Your task to perform on an android device: open a bookmark in the chrome app Image 0: 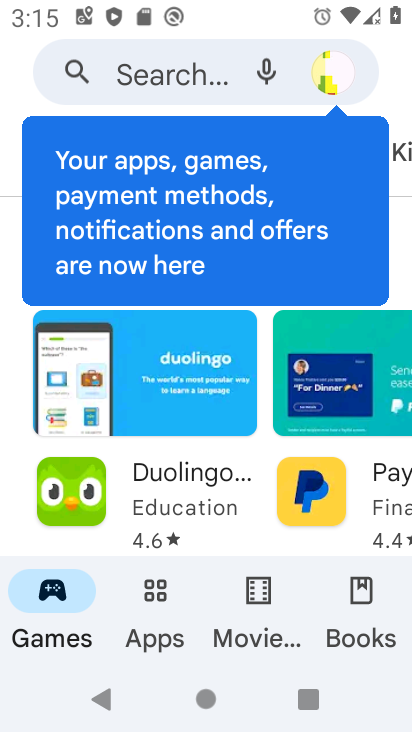
Step 0: press home button
Your task to perform on an android device: open a bookmark in the chrome app Image 1: 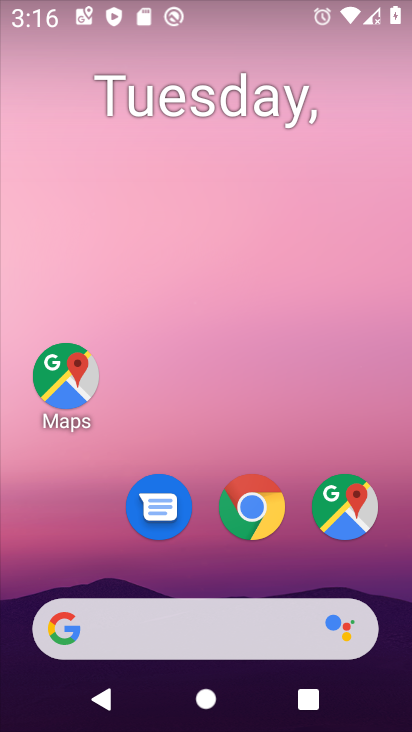
Step 1: click (258, 509)
Your task to perform on an android device: open a bookmark in the chrome app Image 2: 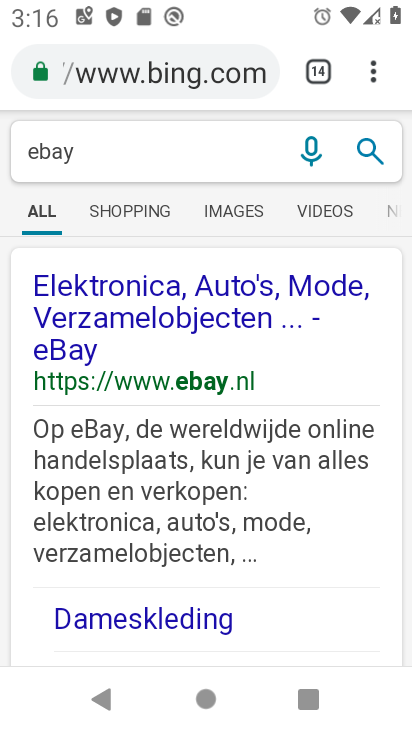
Step 2: click (368, 68)
Your task to perform on an android device: open a bookmark in the chrome app Image 3: 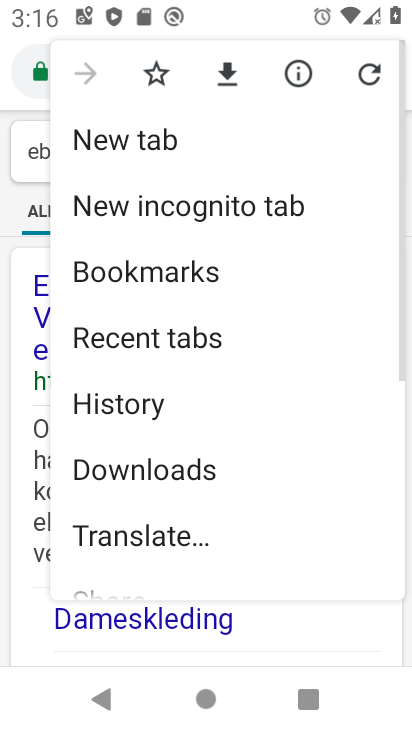
Step 3: drag from (171, 512) to (229, 331)
Your task to perform on an android device: open a bookmark in the chrome app Image 4: 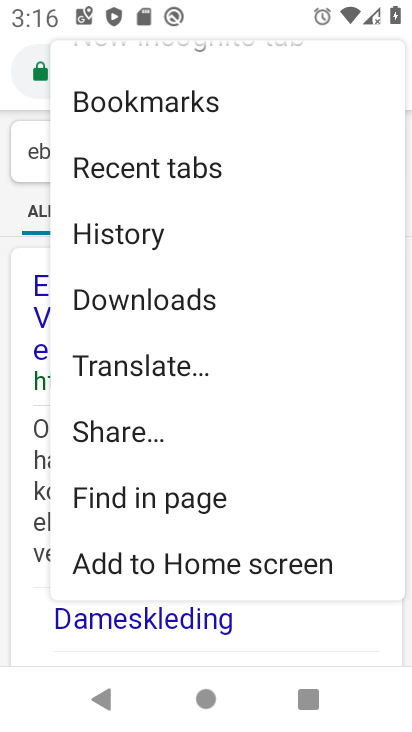
Step 4: click (200, 113)
Your task to perform on an android device: open a bookmark in the chrome app Image 5: 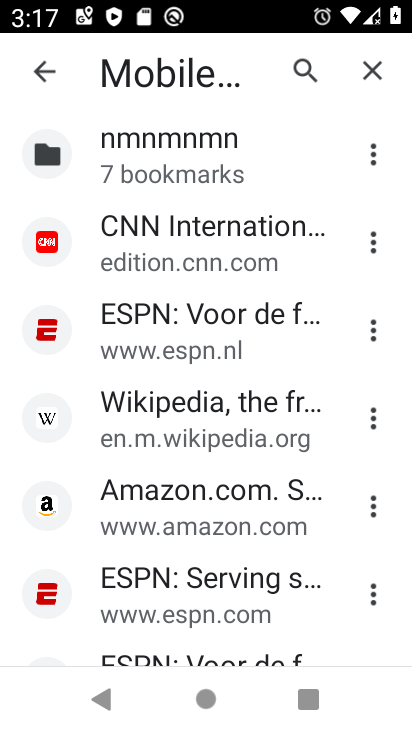
Step 5: task complete